Your task to perform on an android device: Open battery settings Image 0: 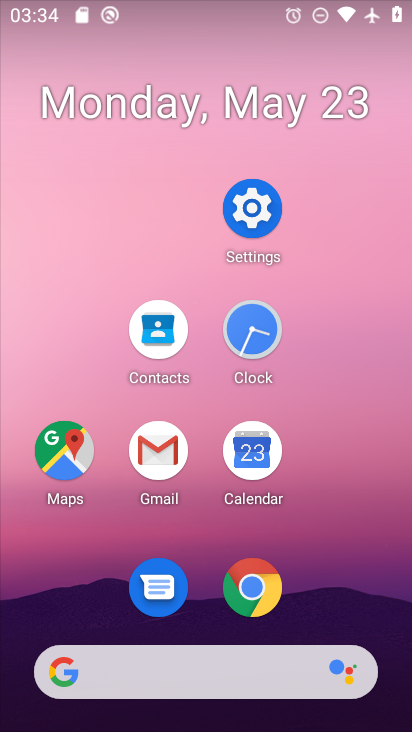
Step 0: click (248, 204)
Your task to perform on an android device: Open battery settings Image 1: 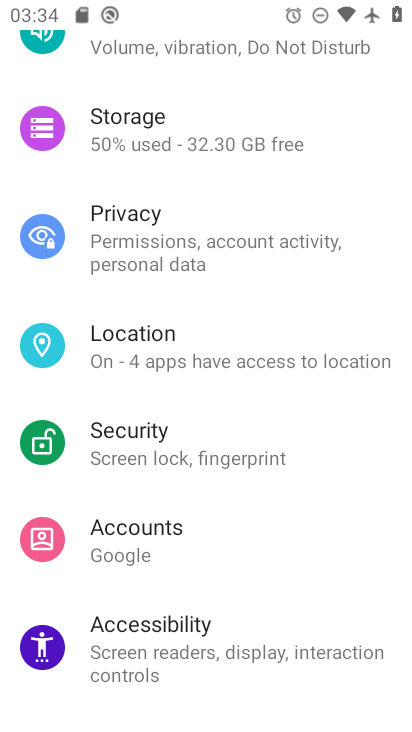
Step 1: drag from (238, 82) to (243, 402)
Your task to perform on an android device: Open battery settings Image 2: 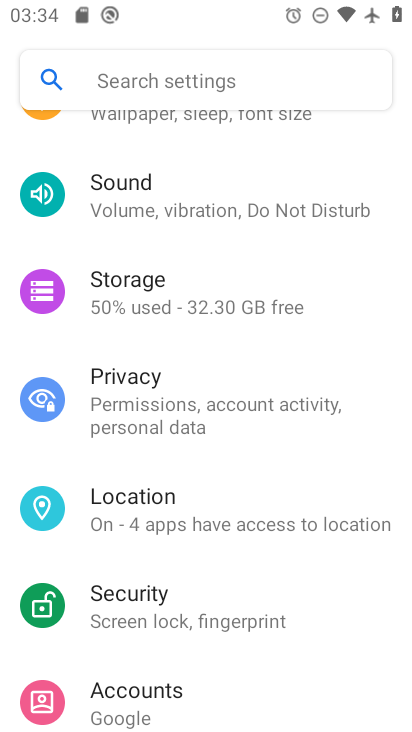
Step 2: drag from (202, 273) to (325, 565)
Your task to perform on an android device: Open battery settings Image 3: 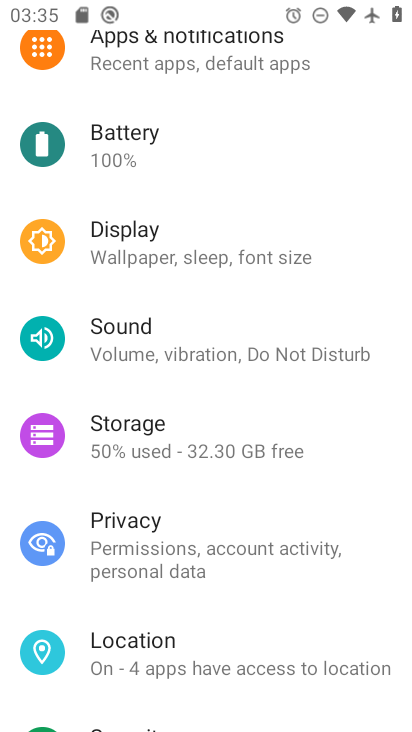
Step 3: click (177, 170)
Your task to perform on an android device: Open battery settings Image 4: 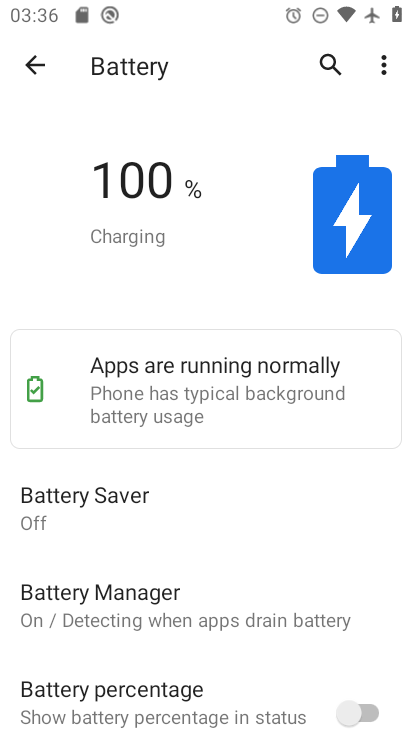
Step 4: task complete